Your task to perform on an android device: Show me the alarms in the clock app Image 0: 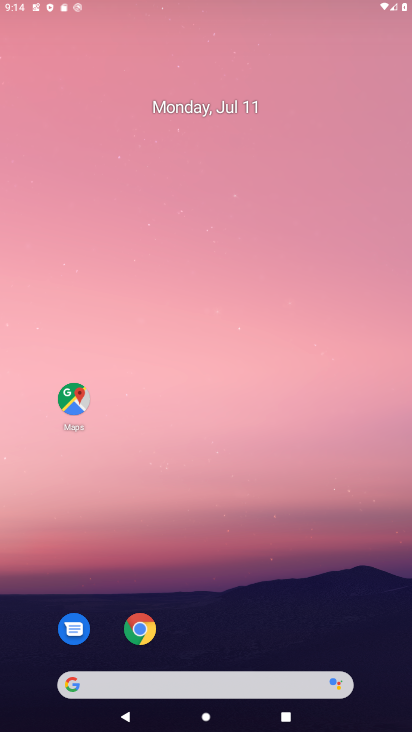
Step 0: click (133, 670)
Your task to perform on an android device: Show me the alarms in the clock app Image 1: 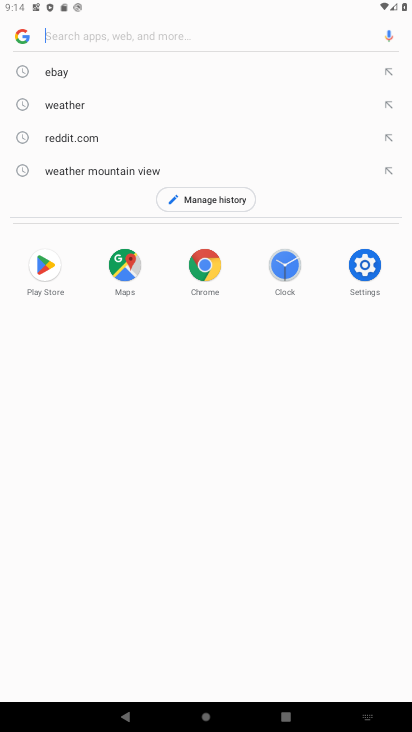
Step 1: press home button
Your task to perform on an android device: Show me the alarms in the clock app Image 2: 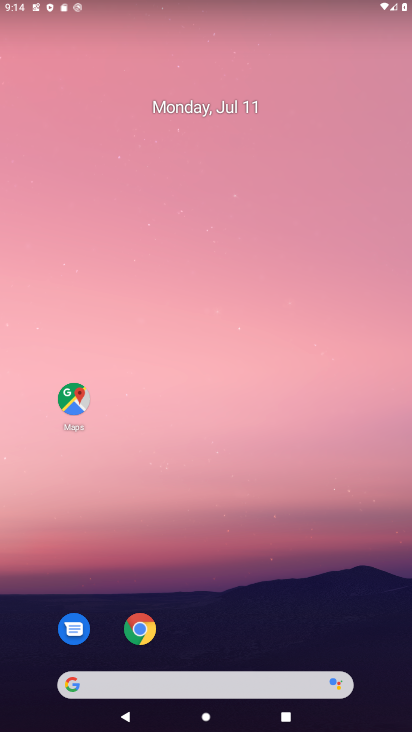
Step 2: drag from (31, 698) to (376, 19)
Your task to perform on an android device: Show me the alarms in the clock app Image 3: 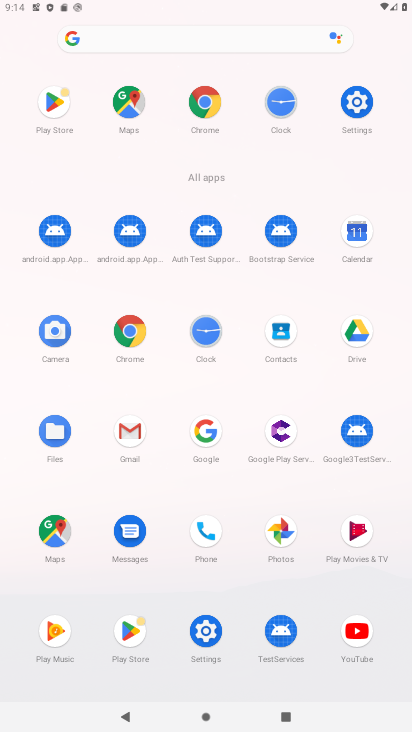
Step 3: click (211, 325)
Your task to perform on an android device: Show me the alarms in the clock app Image 4: 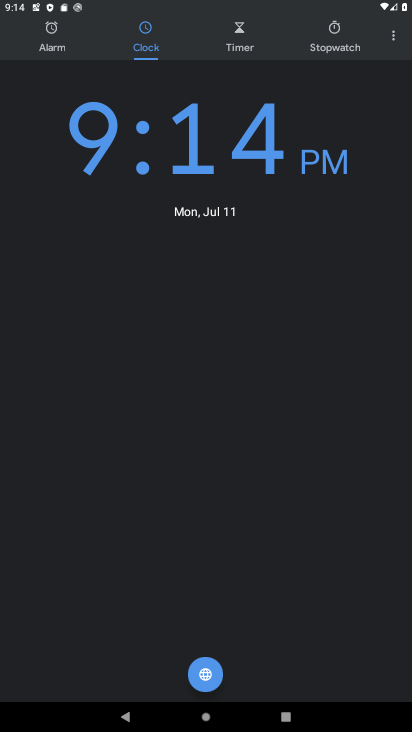
Step 4: click (51, 41)
Your task to perform on an android device: Show me the alarms in the clock app Image 5: 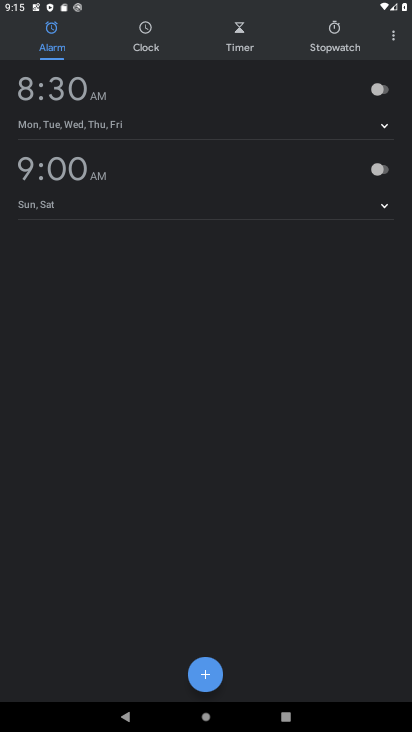
Step 5: task complete